Your task to perform on an android device: Search for seafood restaurants on Google Maps Image 0: 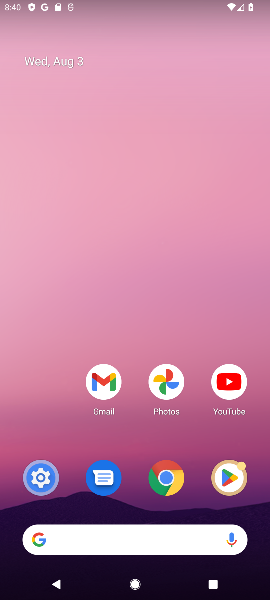
Step 0: drag from (191, 441) to (113, 181)
Your task to perform on an android device: Search for seafood restaurants on Google Maps Image 1: 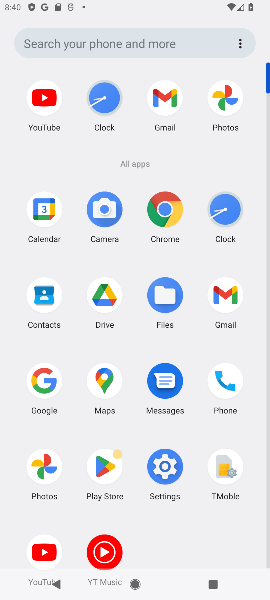
Step 1: click (99, 391)
Your task to perform on an android device: Search for seafood restaurants on Google Maps Image 2: 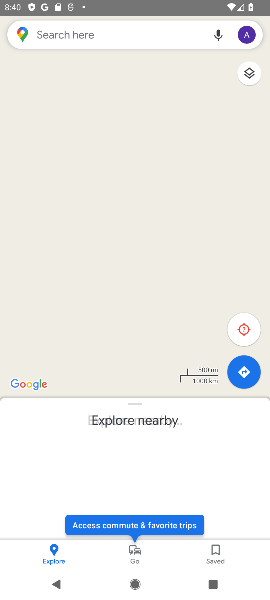
Step 2: click (155, 39)
Your task to perform on an android device: Search for seafood restaurants on Google Maps Image 3: 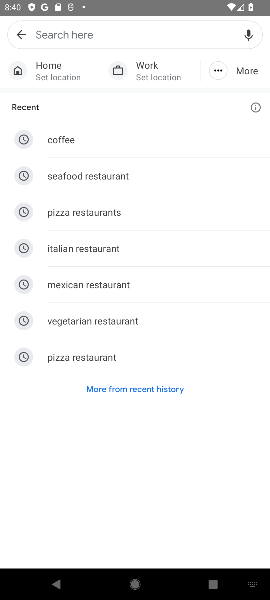
Step 3: click (209, 177)
Your task to perform on an android device: Search for seafood restaurants on Google Maps Image 4: 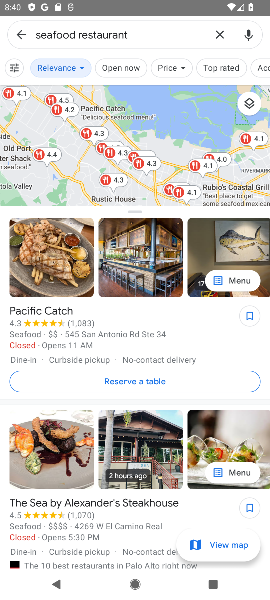
Step 4: task complete